Your task to perform on an android device: Toggle the flashlight Image 0: 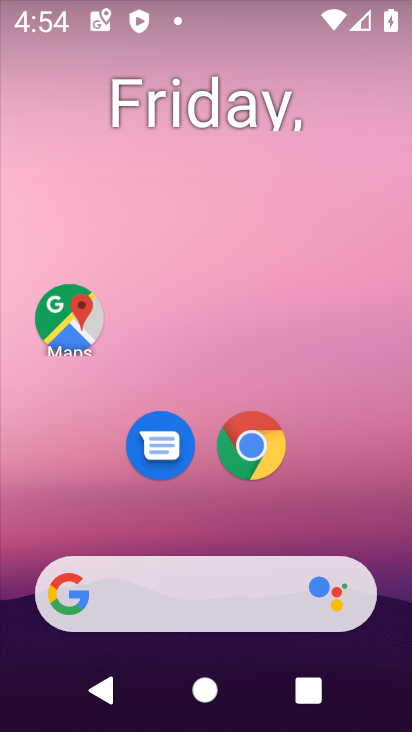
Step 0: drag from (343, 526) to (315, 161)
Your task to perform on an android device: Toggle the flashlight Image 1: 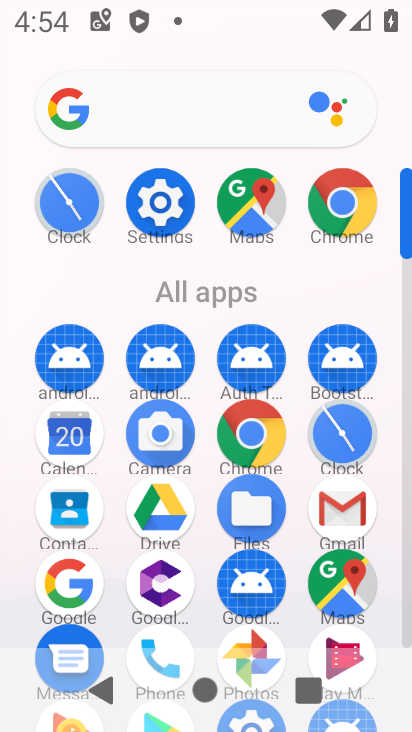
Step 1: click (174, 214)
Your task to perform on an android device: Toggle the flashlight Image 2: 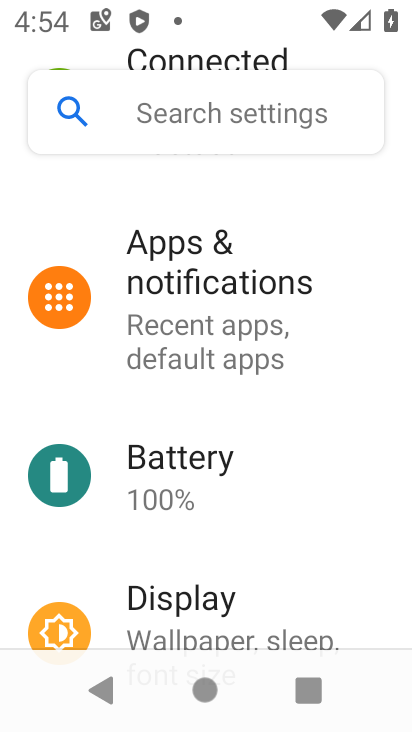
Step 2: click (247, 442)
Your task to perform on an android device: Toggle the flashlight Image 3: 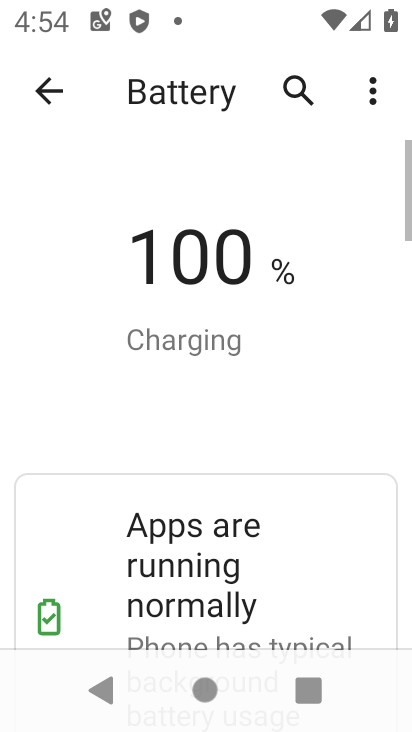
Step 3: task complete